Your task to perform on an android device: Check the weather Image 0: 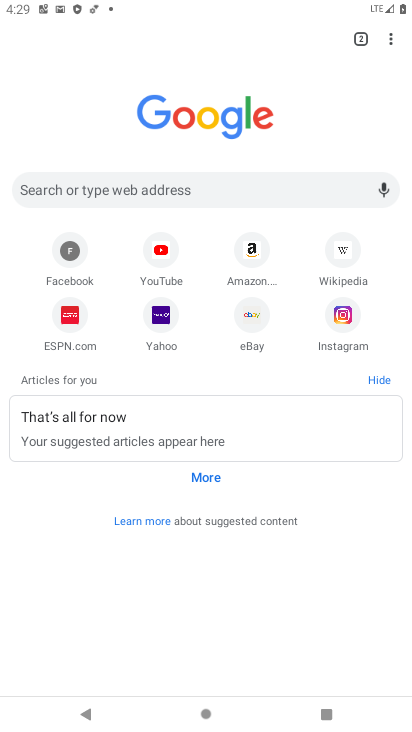
Step 0: press home button
Your task to perform on an android device: Check the weather Image 1: 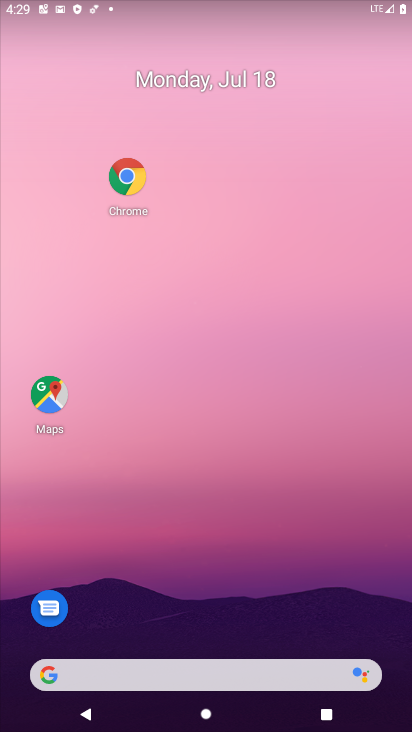
Step 1: drag from (248, 679) to (272, 221)
Your task to perform on an android device: Check the weather Image 2: 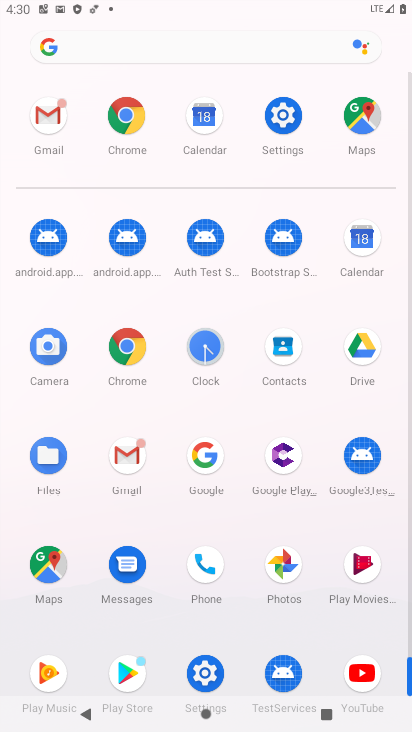
Step 2: click (217, 481)
Your task to perform on an android device: Check the weather Image 3: 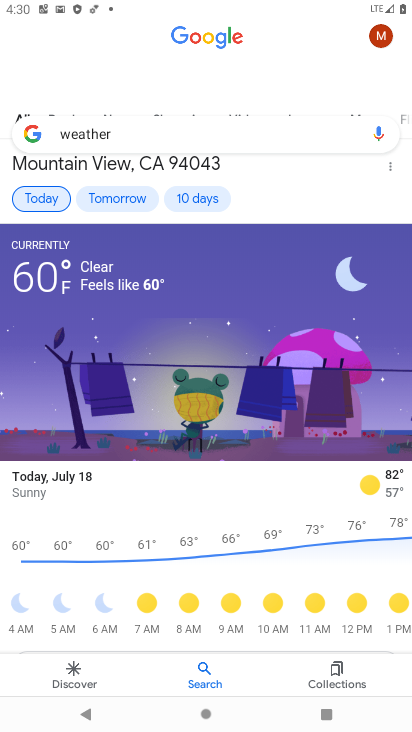
Step 3: task complete